Your task to perform on an android device: Go to internet settings Image 0: 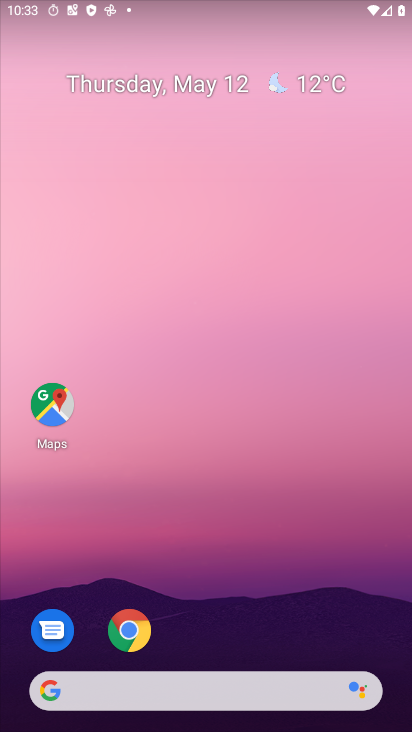
Step 0: drag from (247, 654) to (318, 102)
Your task to perform on an android device: Go to internet settings Image 1: 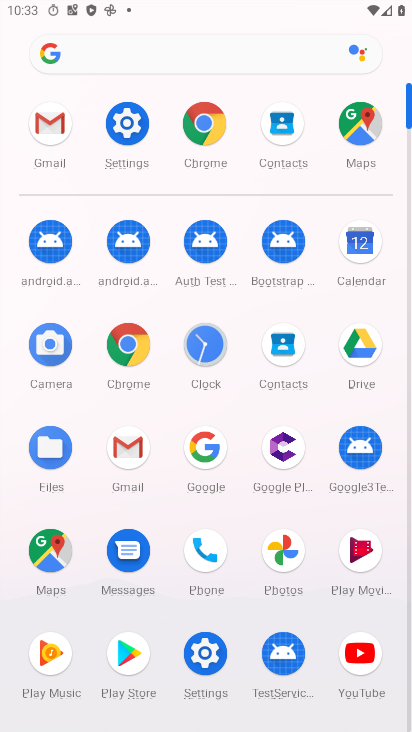
Step 1: click (115, 142)
Your task to perform on an android device: Go to internet settings Image 2: 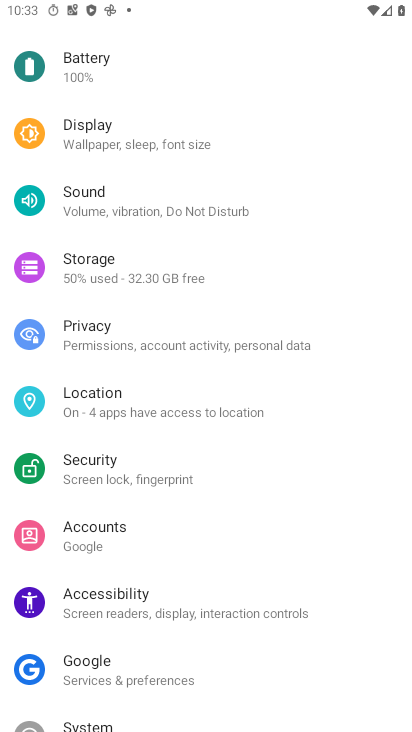
Step 2: drag from (234, 174) to (273, 656)
Your task to perform on an android device: Go to internet settings Image 3: 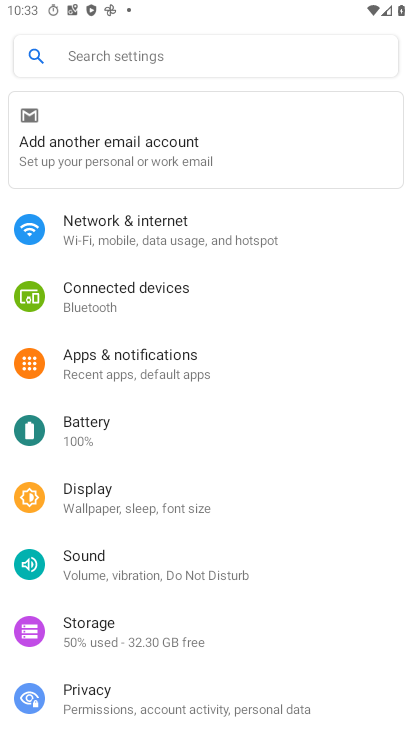
Step 3: click (162, 239)
Your task to perform on an android device: Go to internet settings Image 4: 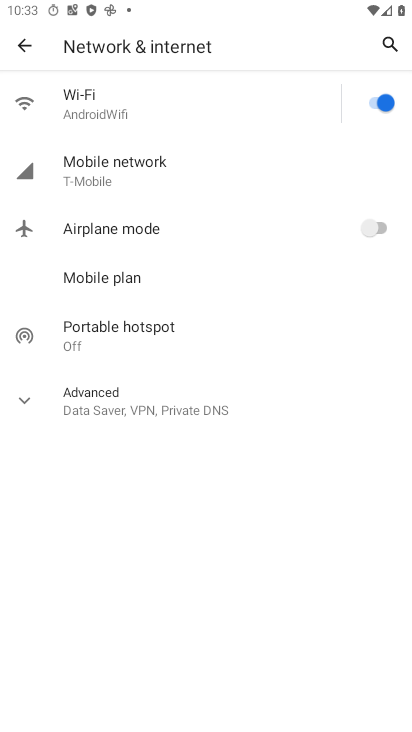
Step 4: task complete